Your task to perform on an android device: change the clock style Image 0: 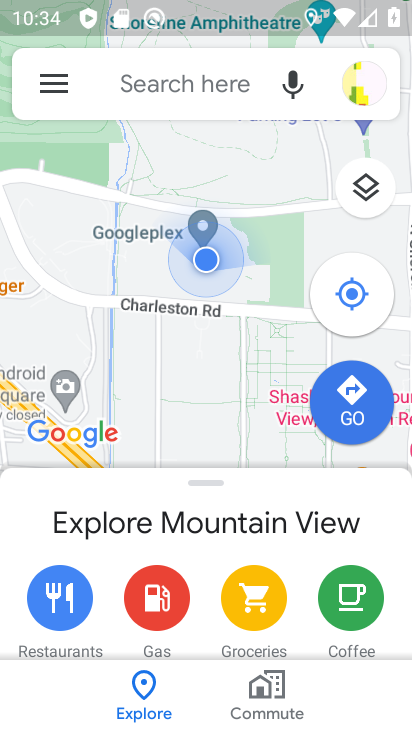
Step 0: press home button
Your task to perform on an android device: change the clock style Image 1: 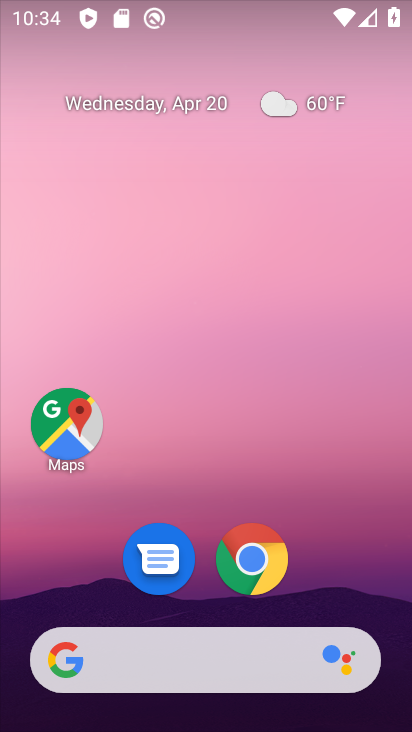
Step 1: drag from (255, 570) to (224, 11)
Your task to perform on an android device: change the clock style Image 2: 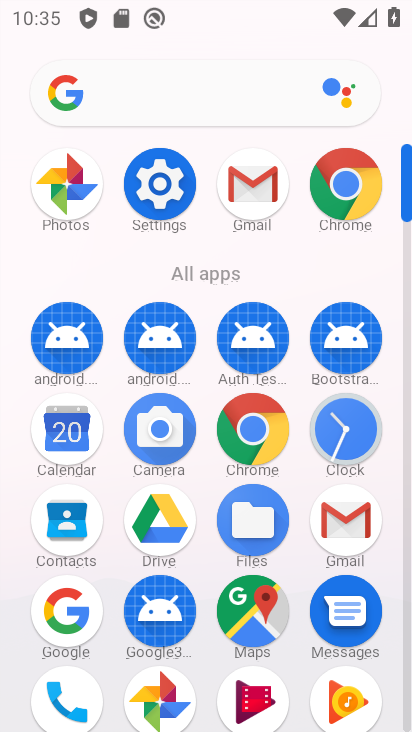
Step 2: click (329, 449)
Your task to perform on an android device: change the clock style Image 3: 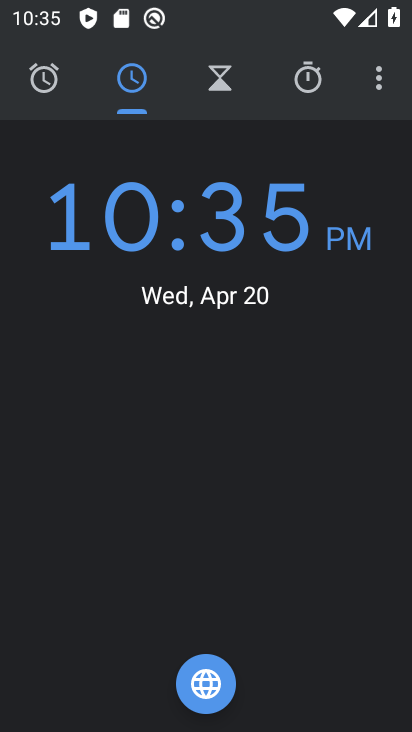
Step 3: click (371, 79)
Your task to perform on an android device: change the clock style Image 4: 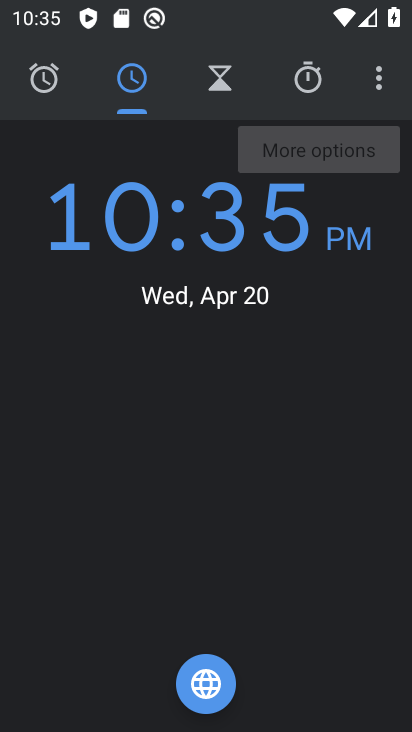
Step 4: click (378, 80)
Your task to perform on an android device: change the clock style Image 5: 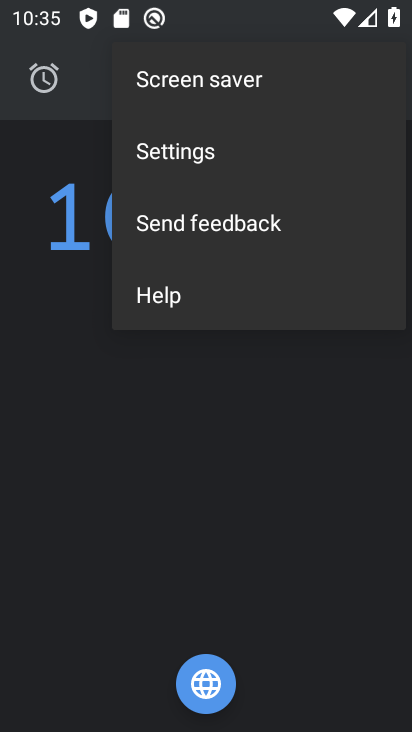
Step 5: click (242, 158)
Your task to perform on an android device: change the clock style Image 6: 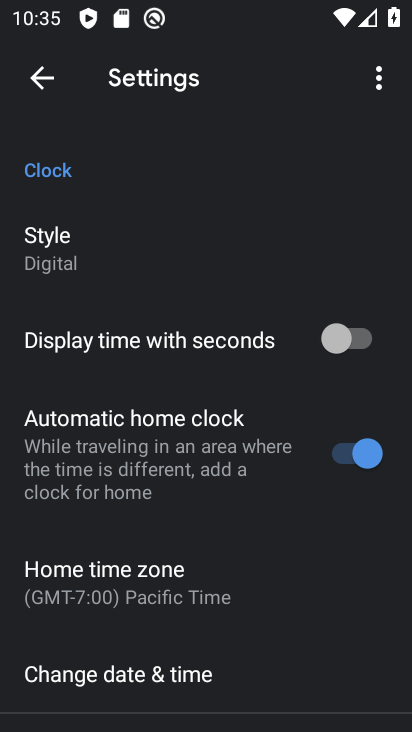
Step 6: click (85, 255)
Your task to perform on an android device: change the clock style Image 7: 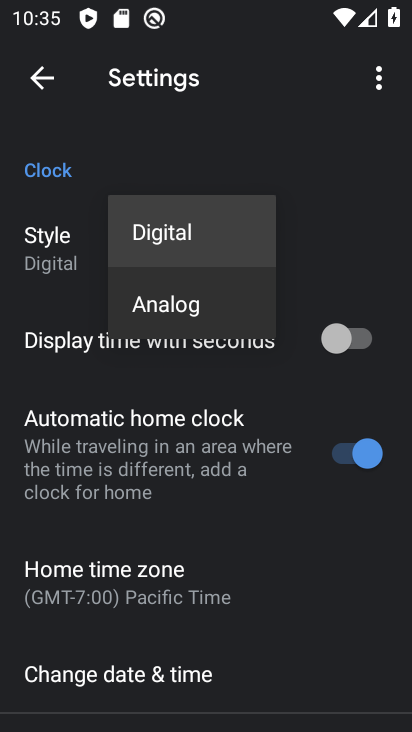
Step 7: click (160, 306)
Your task to perform on an android device: change the clock style Image 8: 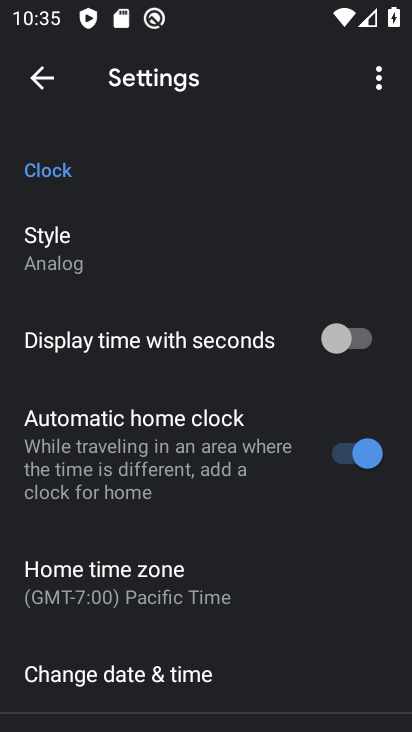
Step 8: task complete